Your task to perform on an android device: Is it going to rain tomorrow? Image 0: 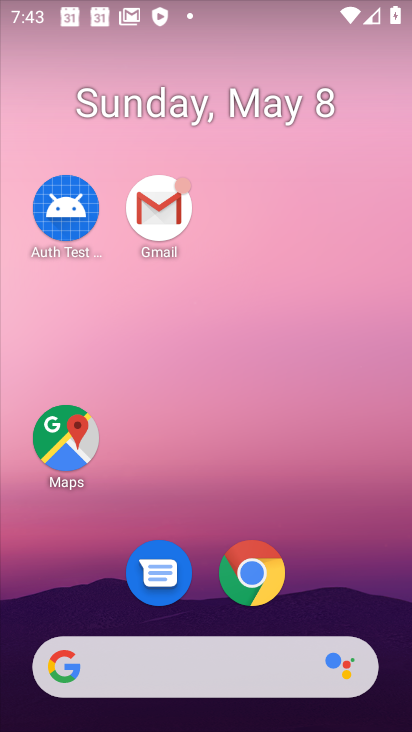
Step 0: task impossible